Your task to perform on an android device: open app "Nova Launcher" Image 0: 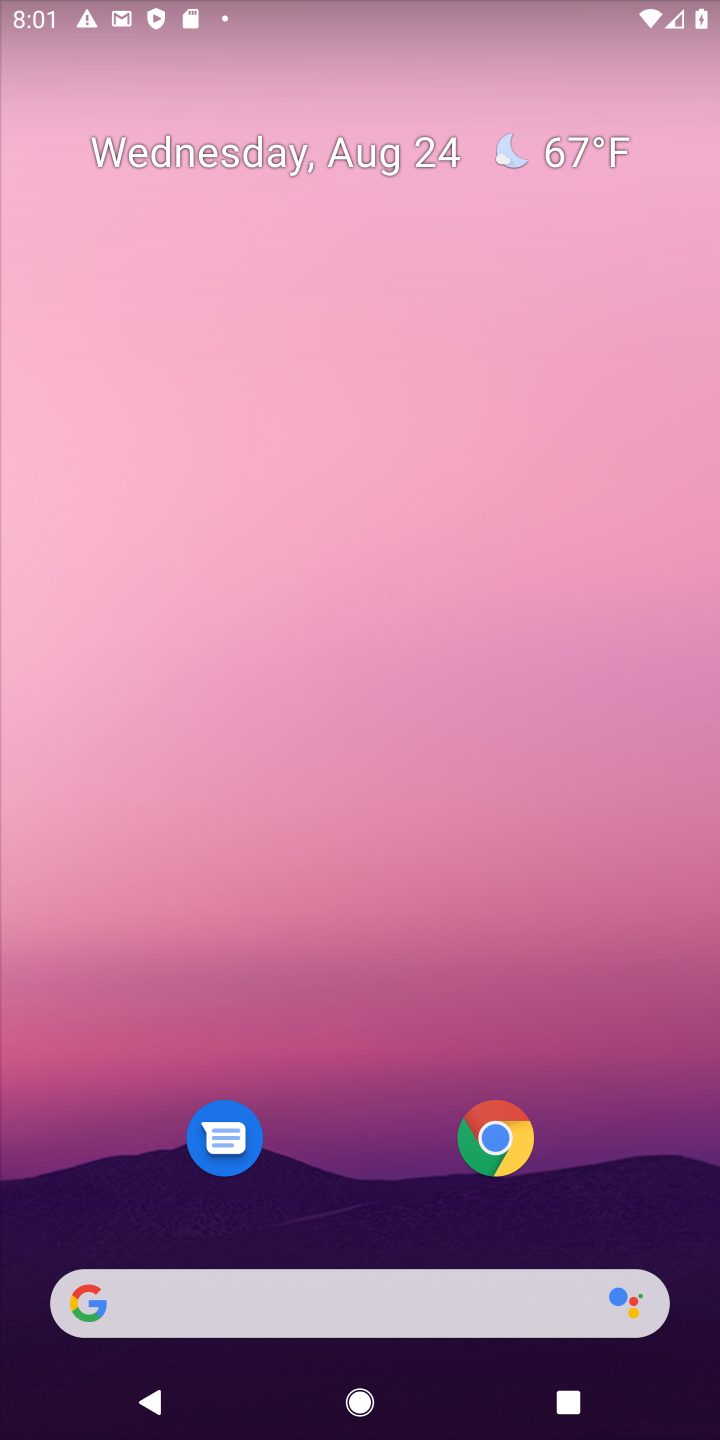
Step 0: drag from (405, 1214) to (200, 190)
Your task to perform on an android device: open app "Nova Launcher" Image 1: 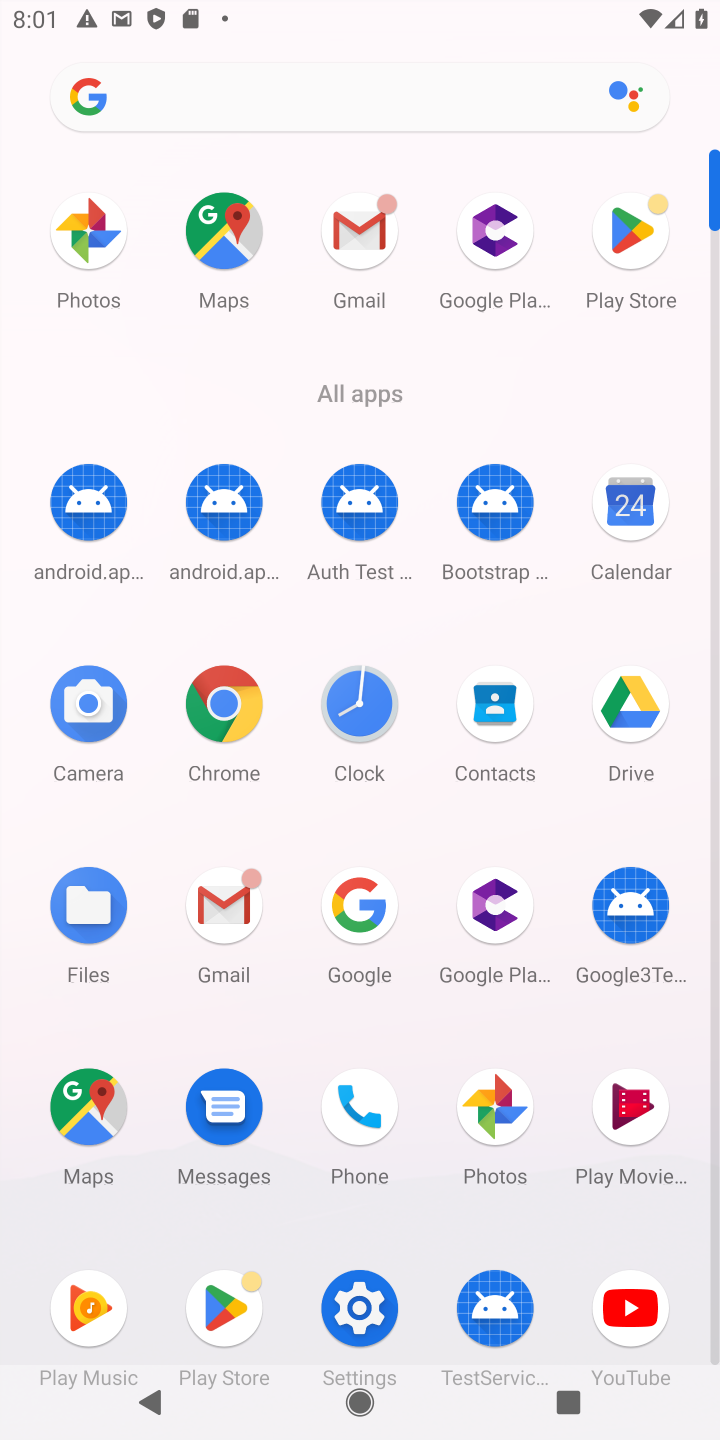
Step 1: click (227, 1308)
Your task to perform on an android device: open app "Nova Launcher" Image 2: 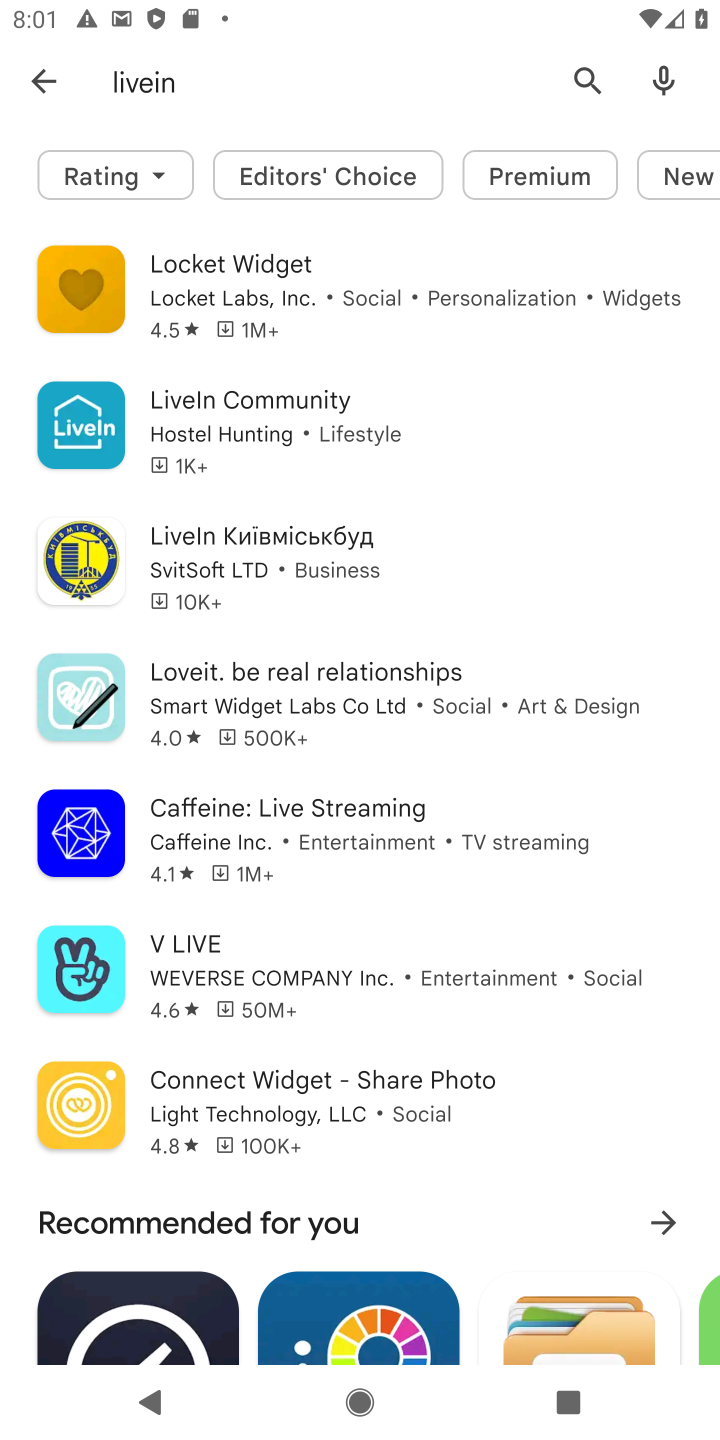
Step 2: click (37, 73)
Your task to perform on an android device: open app "Nova Launcher" Image 3: 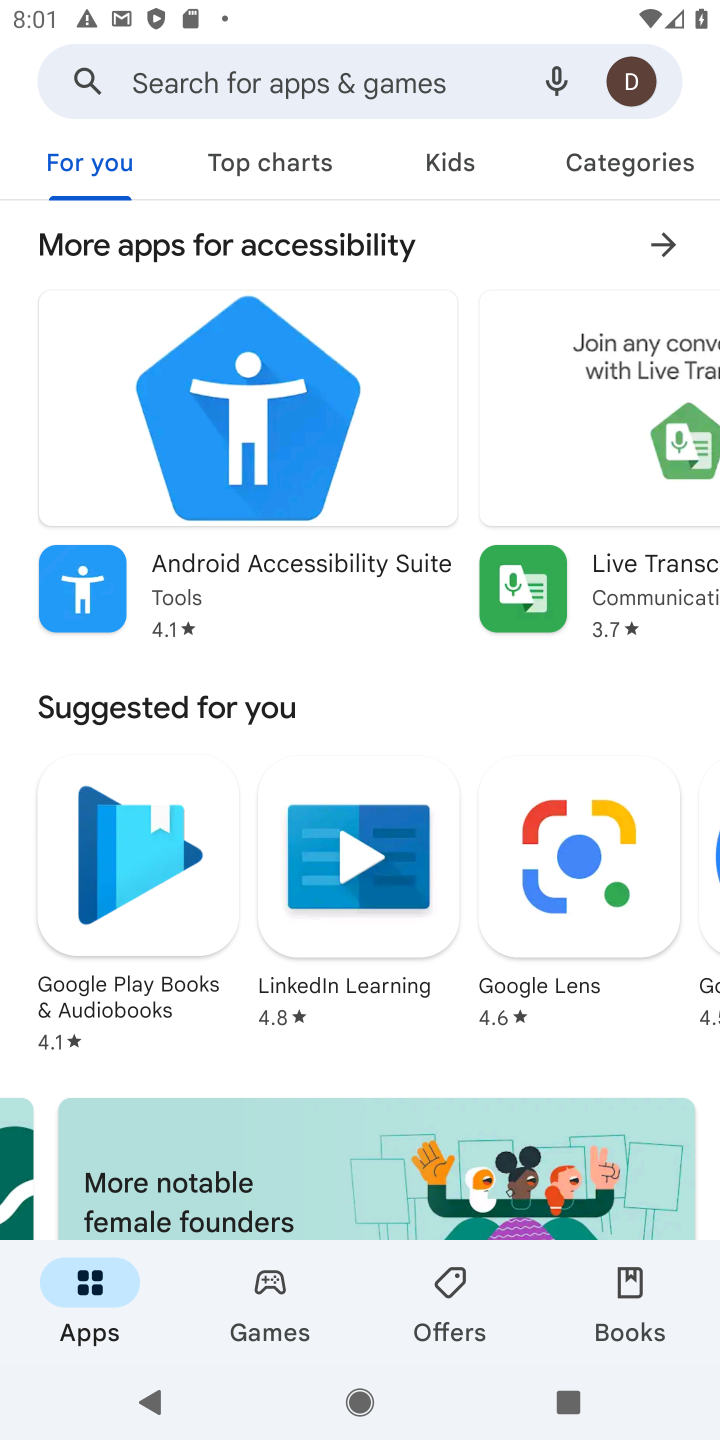
Step 3: click (238, 71)
Your task to perform on an android device: open app "Nova Launcher" Image 4: 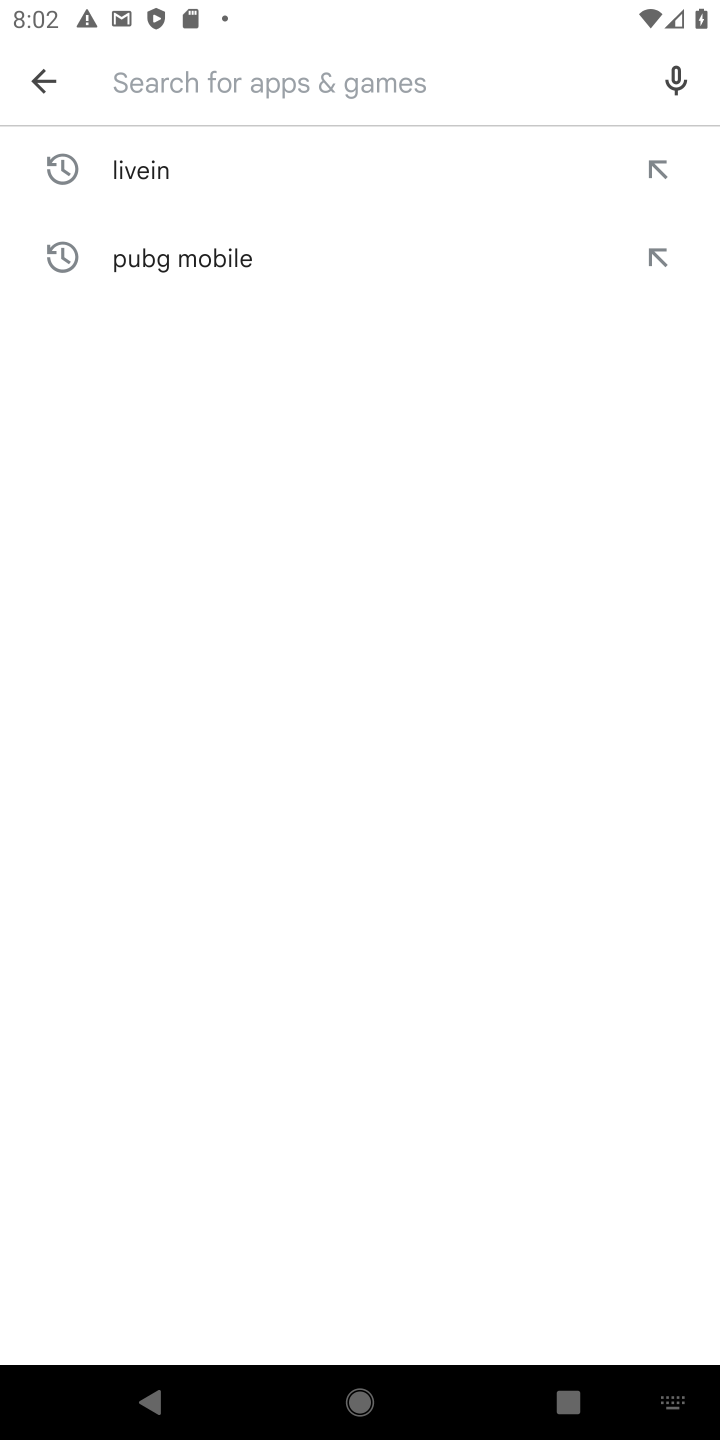
Step 4: type "Nova Launcher"
Your task to perform on an android device: open app "Nova Launcher" Image 5: 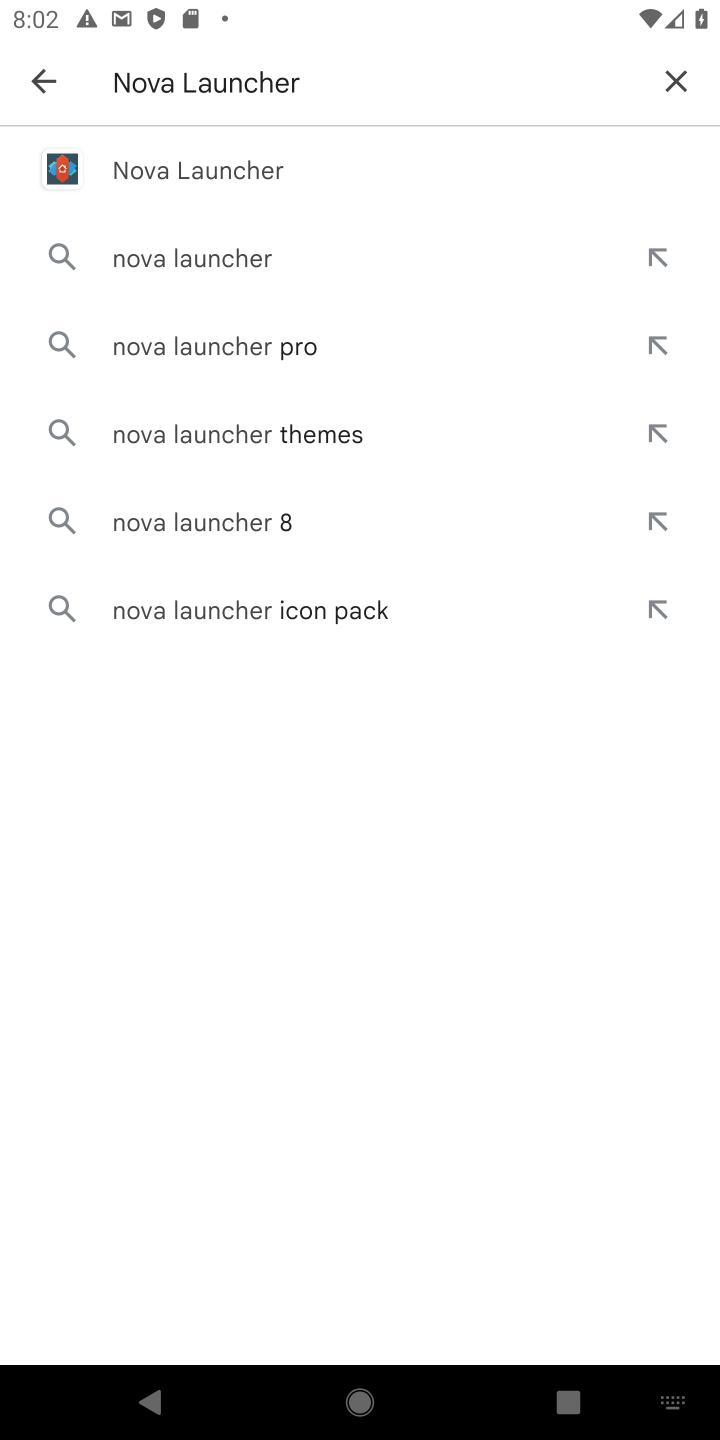
Step 5: click (154, 178)
Your task to perform on an android device: open app "Nova Launcher" Image 6: 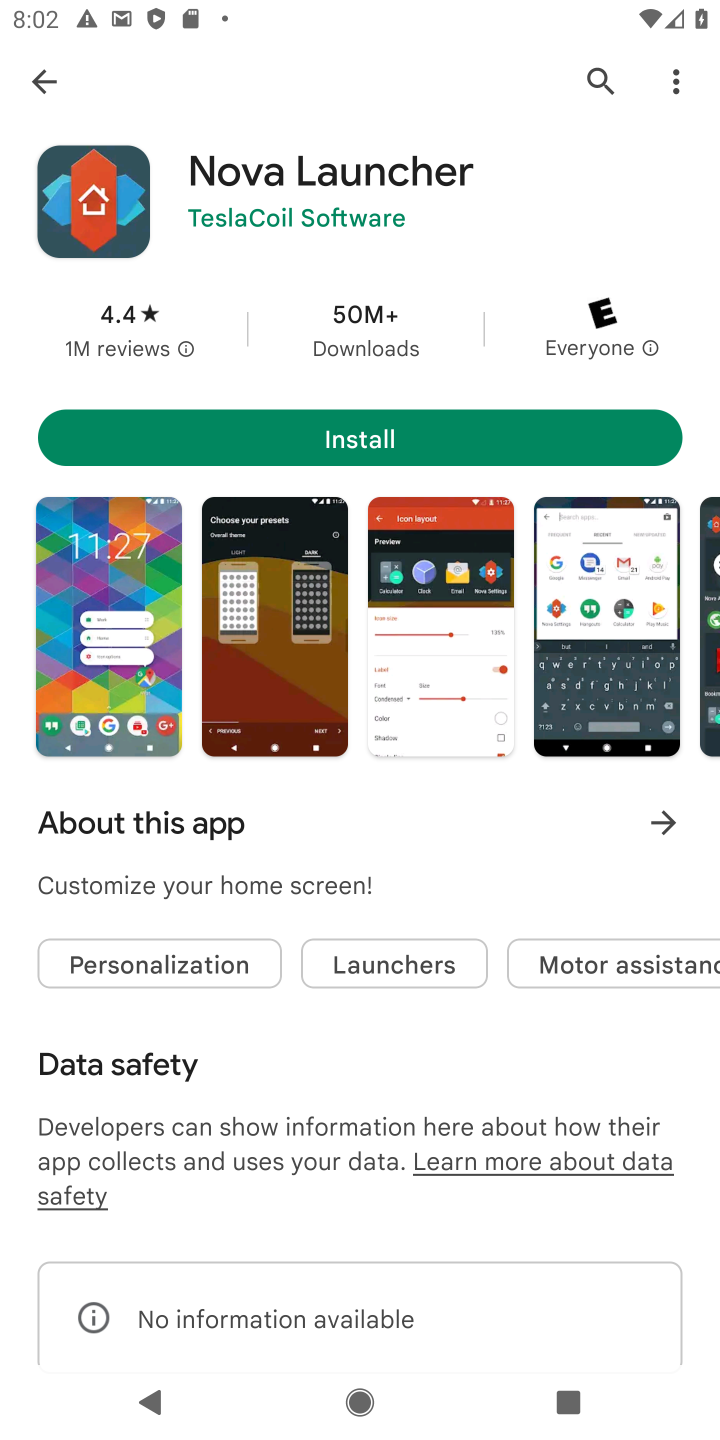
Step 6: task complete